Your task to perform on an android device: Open network settings Image 0: 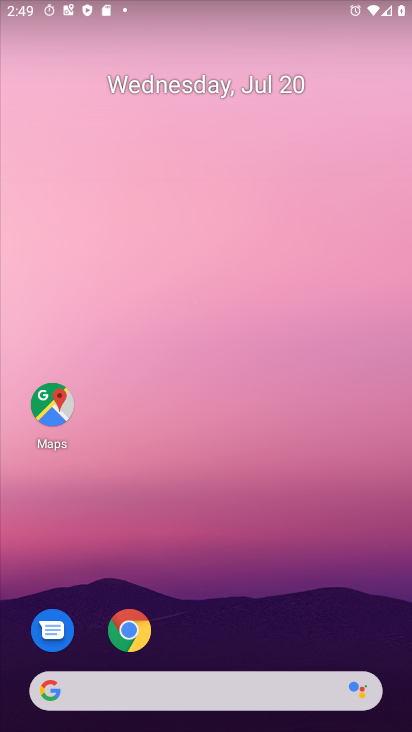
Step 0: drag from (229, 474) to (302, 4)
Your task to perform on an android device: Open network settings Image 1: 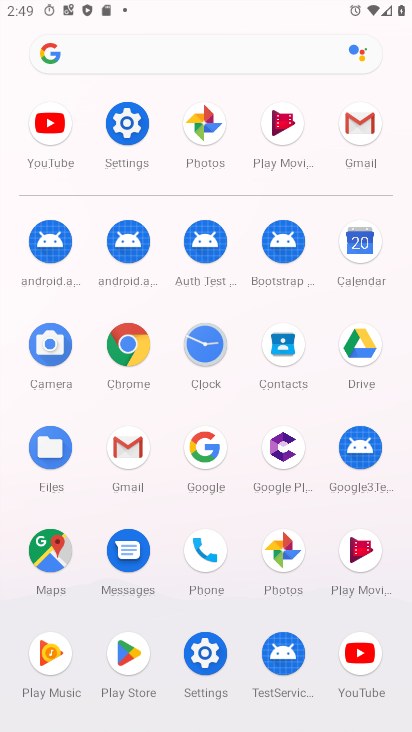
Step 1: click (135, 123)
Your task to perform on an android device: Open network settings Image 2: 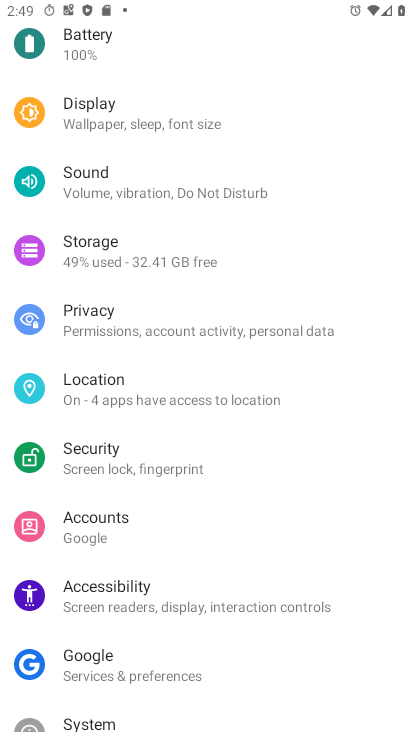
Step 2: drag from (346, 75) to (274, 565)
Your task to perform on an android device: Open network settings Image 3: 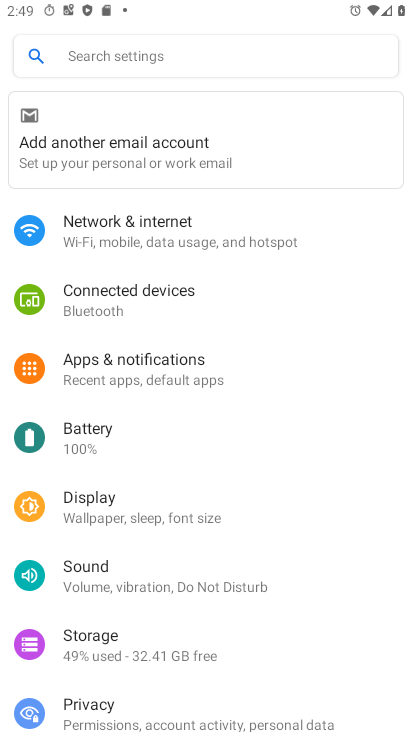
Step 3: click (160, 227)
Your task to perform on an android device: Open network settings Image 4: 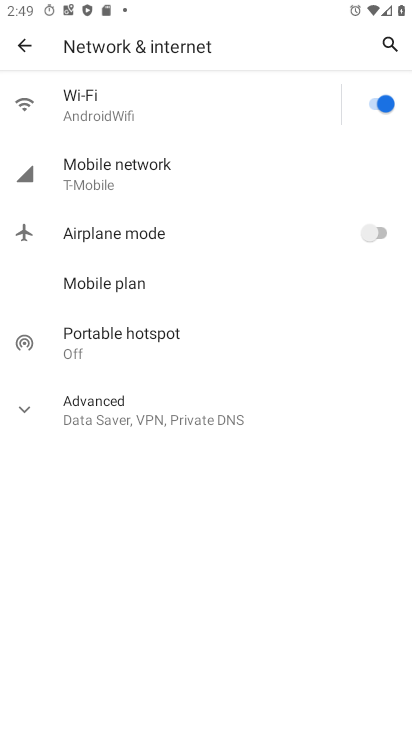
Step 4: click (127, 170)
Your task to perform on an android device: Open network settings Image 5: 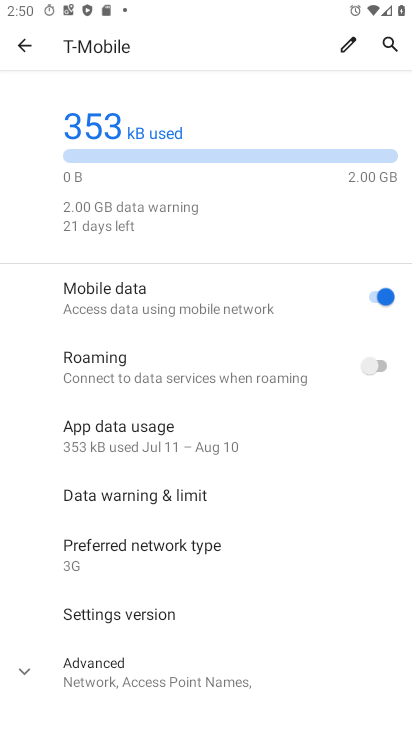
Step 5: task complete